Your task to perform on an android device: Go to network settings Image 0: 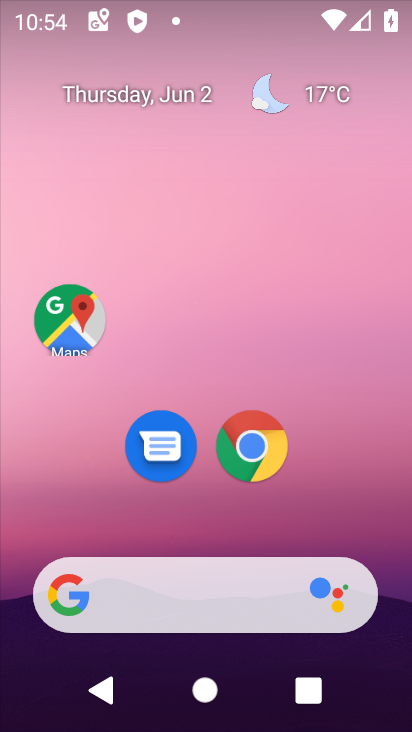
Step 0: drag from (367, 503) to (275, 98)
Your task to perform on an android device: Go to network settings Image 1: 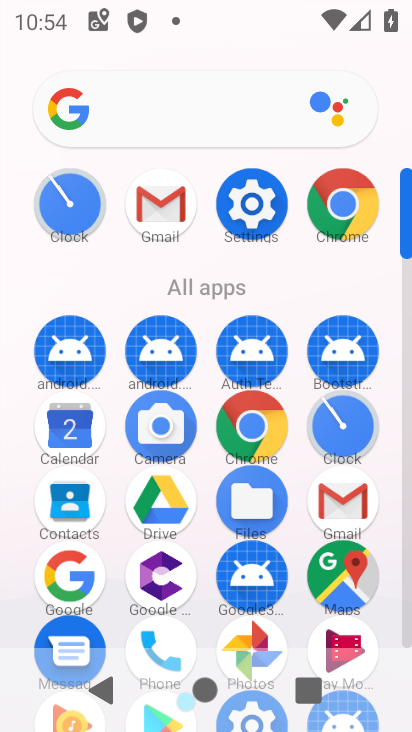
Step 1: click (259, 187)
Your task to perform on an android device: Go to network settings Image 2: 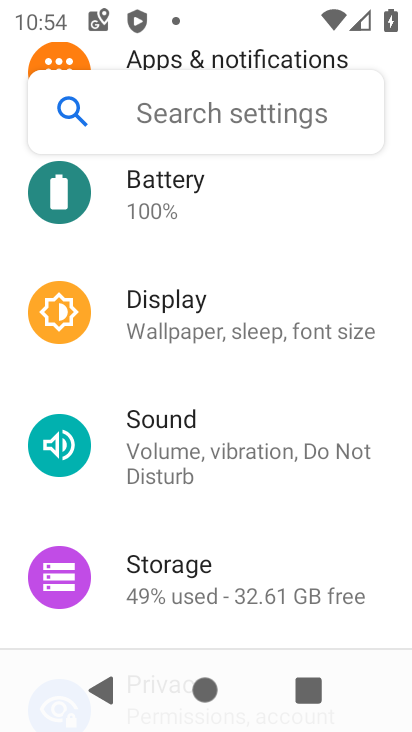
Step 2: drag from (260, 196) to (280, 593)
Your task to perform on an android device: Go to network settings Image 3: 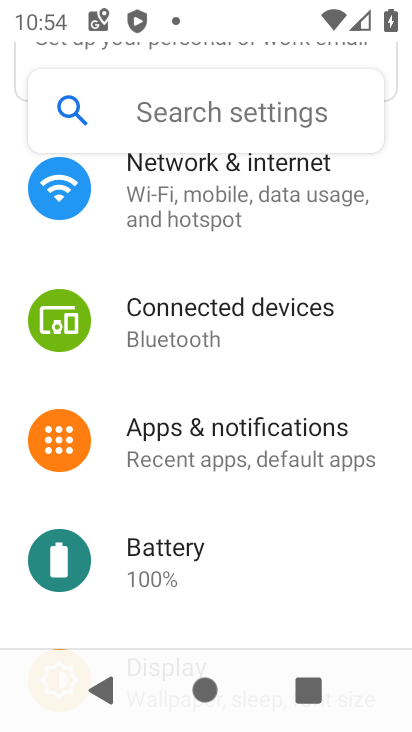
Step 3: click (196, 209)
Your task to perform on an android device: Go to network settings Image 4: 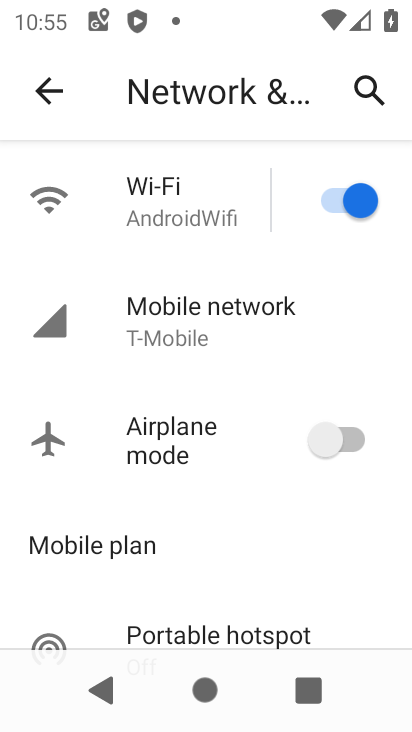
Step 4: drag from (223, 522) to (245, 48)
Your task to perform on an android device: Go to network settings Image 5: 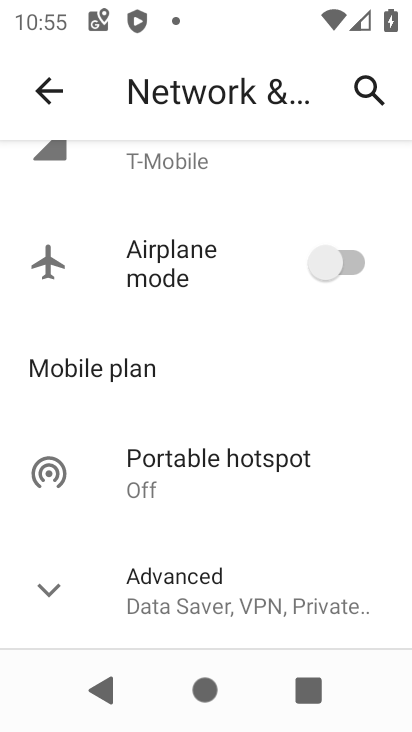
Step 5: click (180, 595)
Your task to perform on an android device: Go to network settings Image 6: 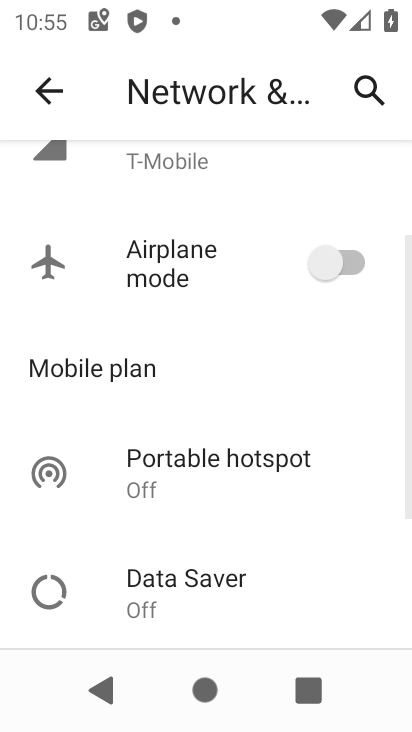
Step 6: task complete